Your task to perform on an android device: check the backup settings in the google photos Image 0: 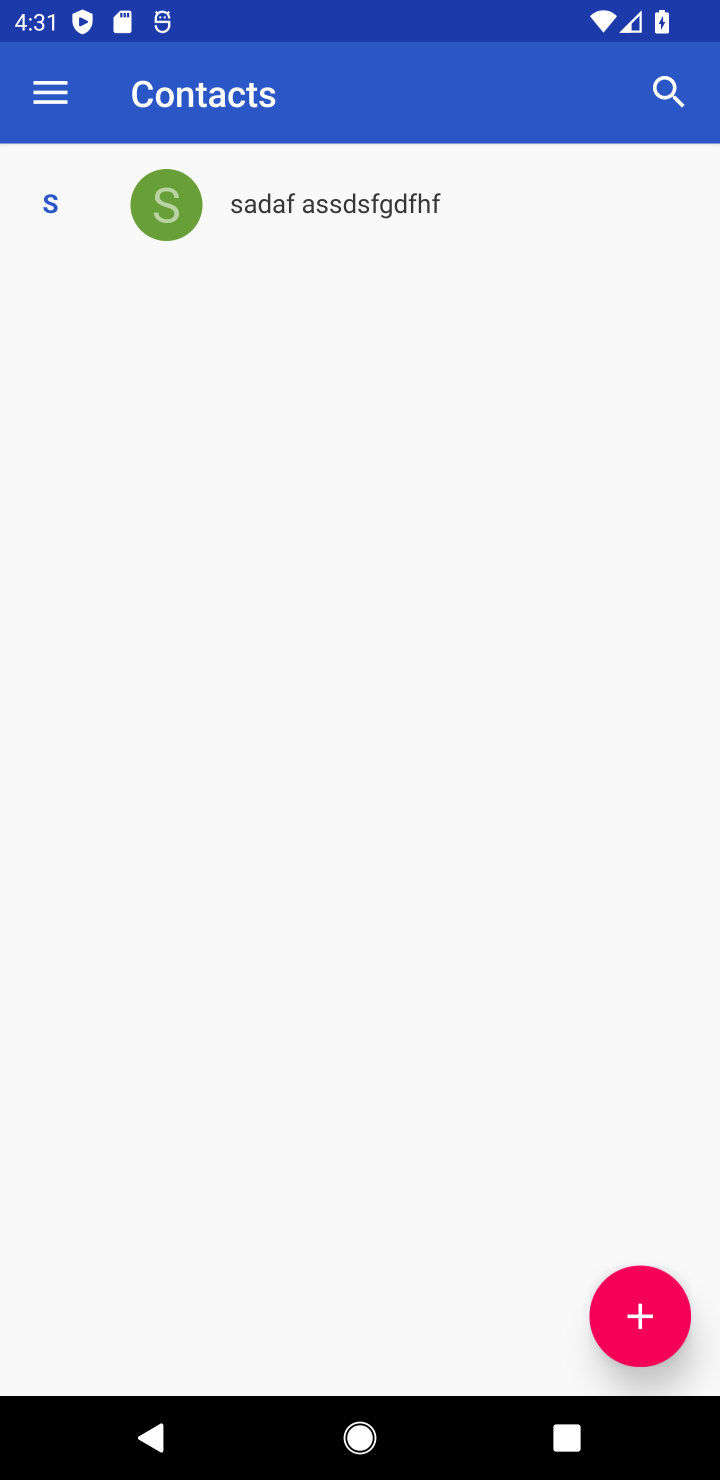
Step 0: press home button
Your task to perform on an android device: check the backup settings in the google photos Image 1: 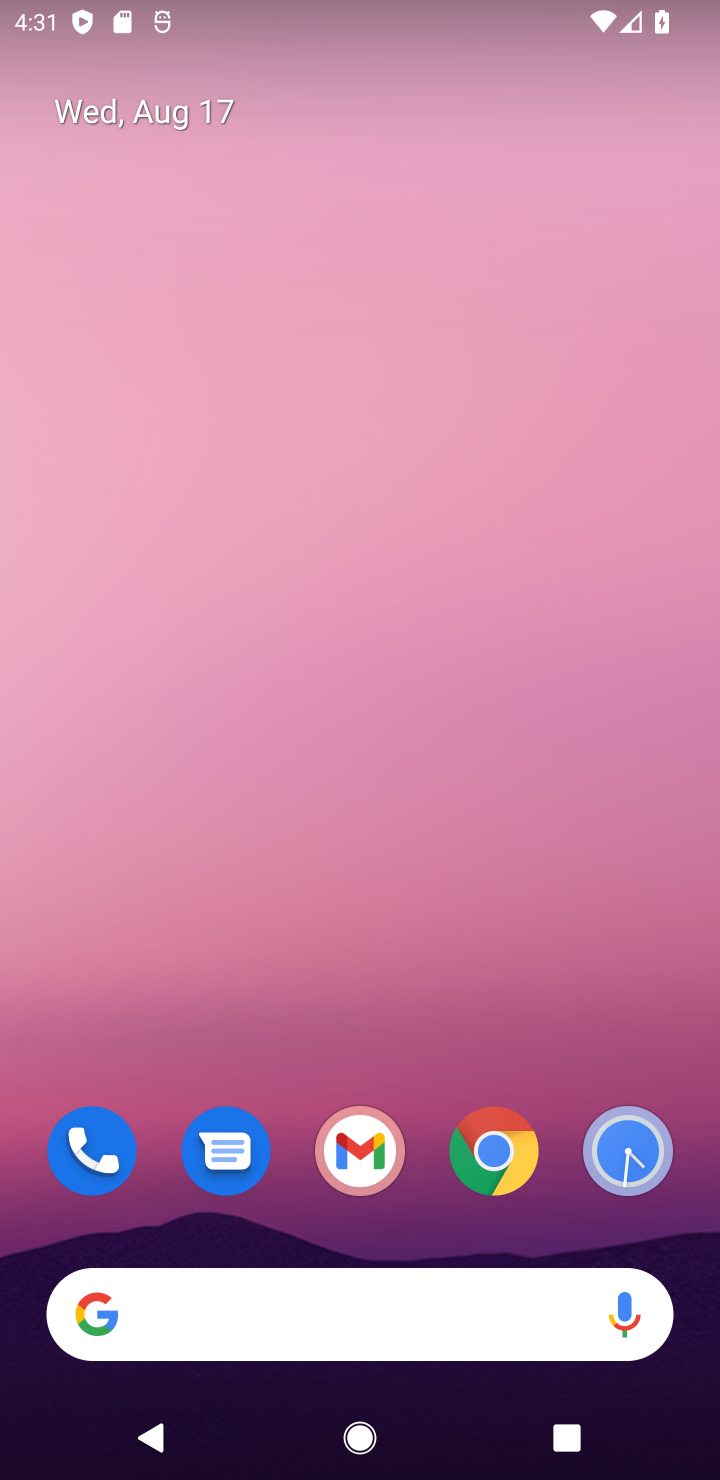
Step 1: drag from (449, 1214) to (412, 241)
Your task to perform on an android device: check the backup settings in the google photos Image 2: 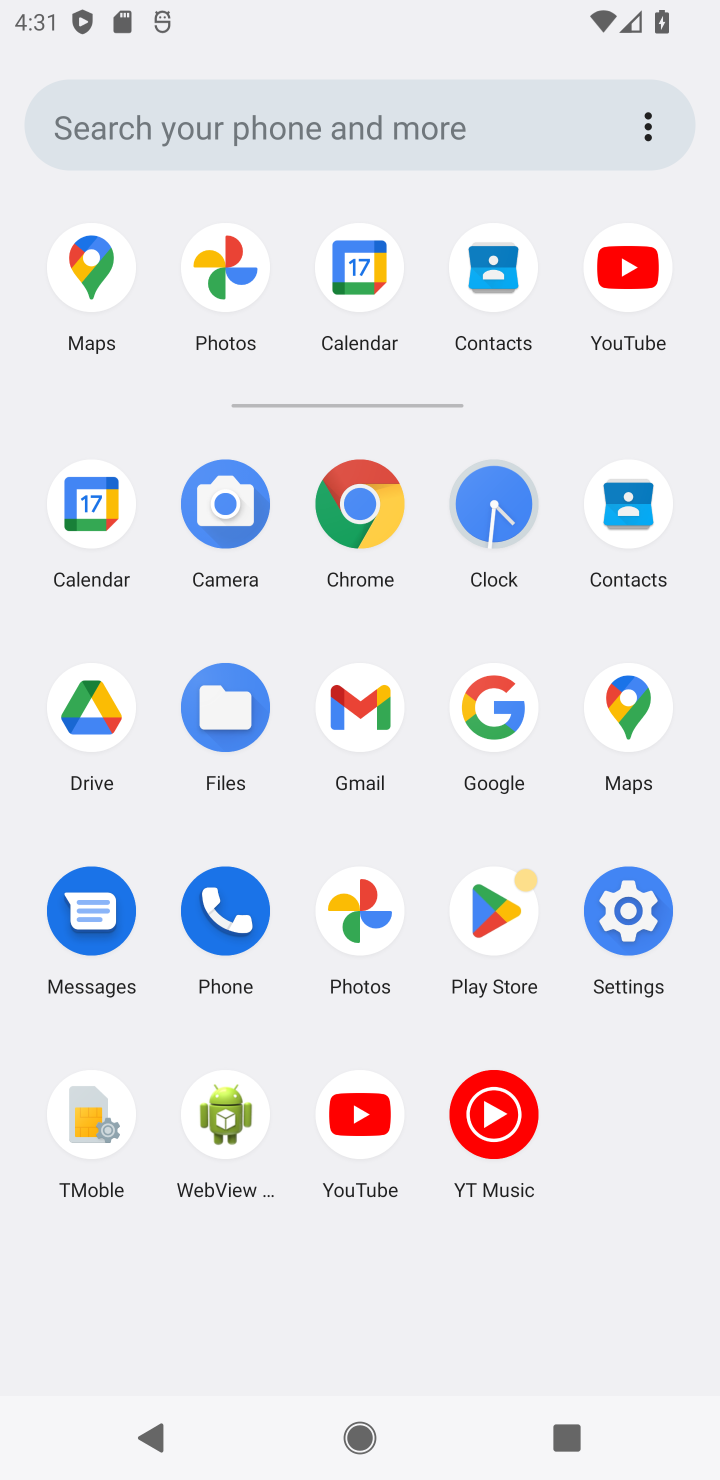
Step 2: click (630, 996)
Your task to perform on an android device: check the backup settings in the google photos Image 3: 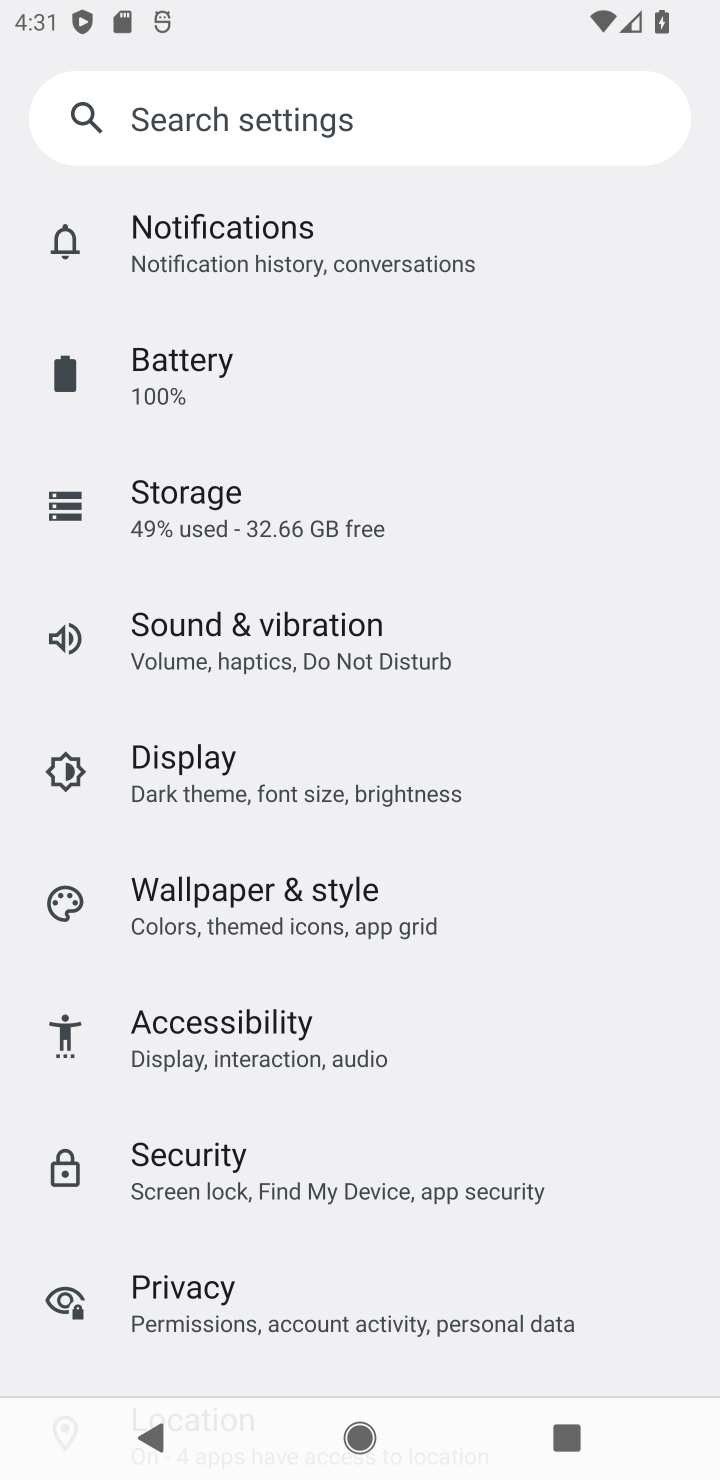
Step 3: press home button
Your task to perform on an android device: check the backup settings in the google photos Image 4: 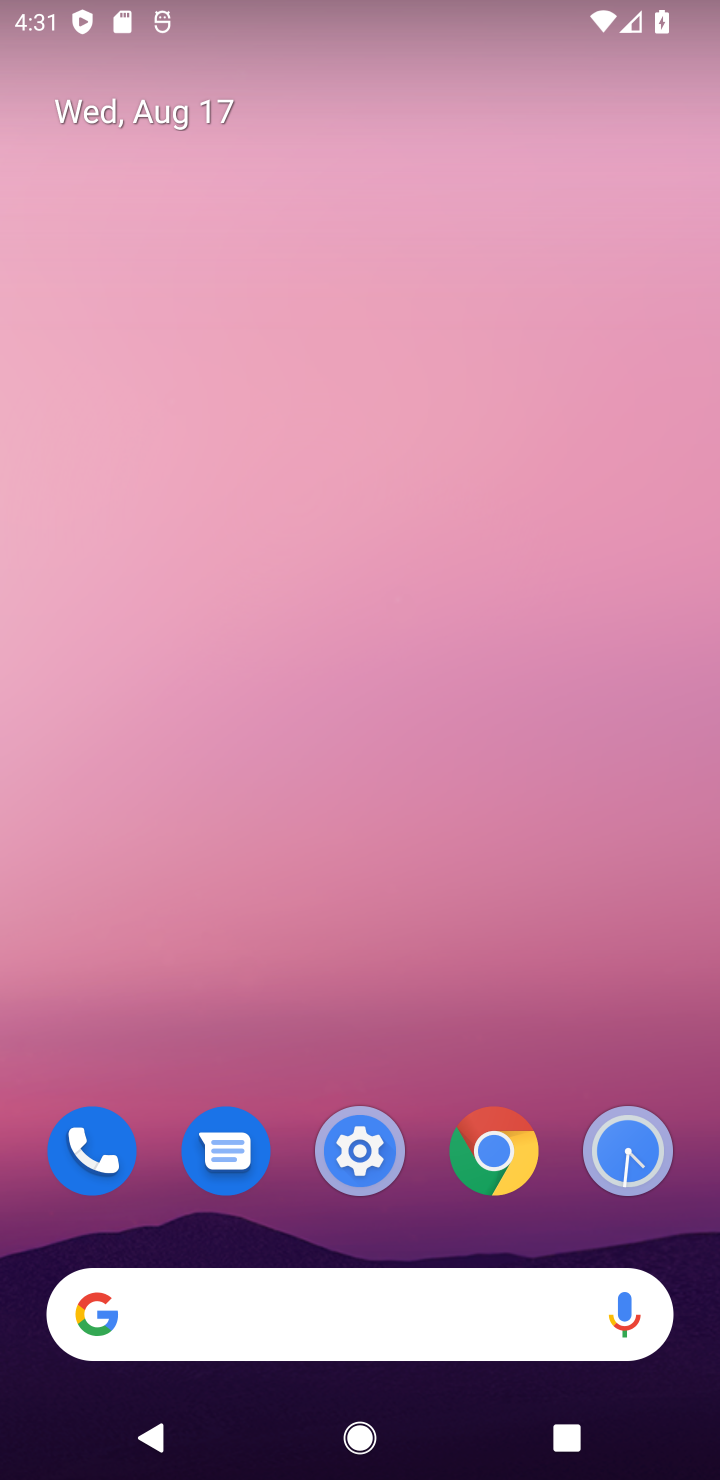
Step 4: drag from (434, 1225) to (415, 215)
Your task to perform on an android device: check the backup settings in the google photos Image 5: 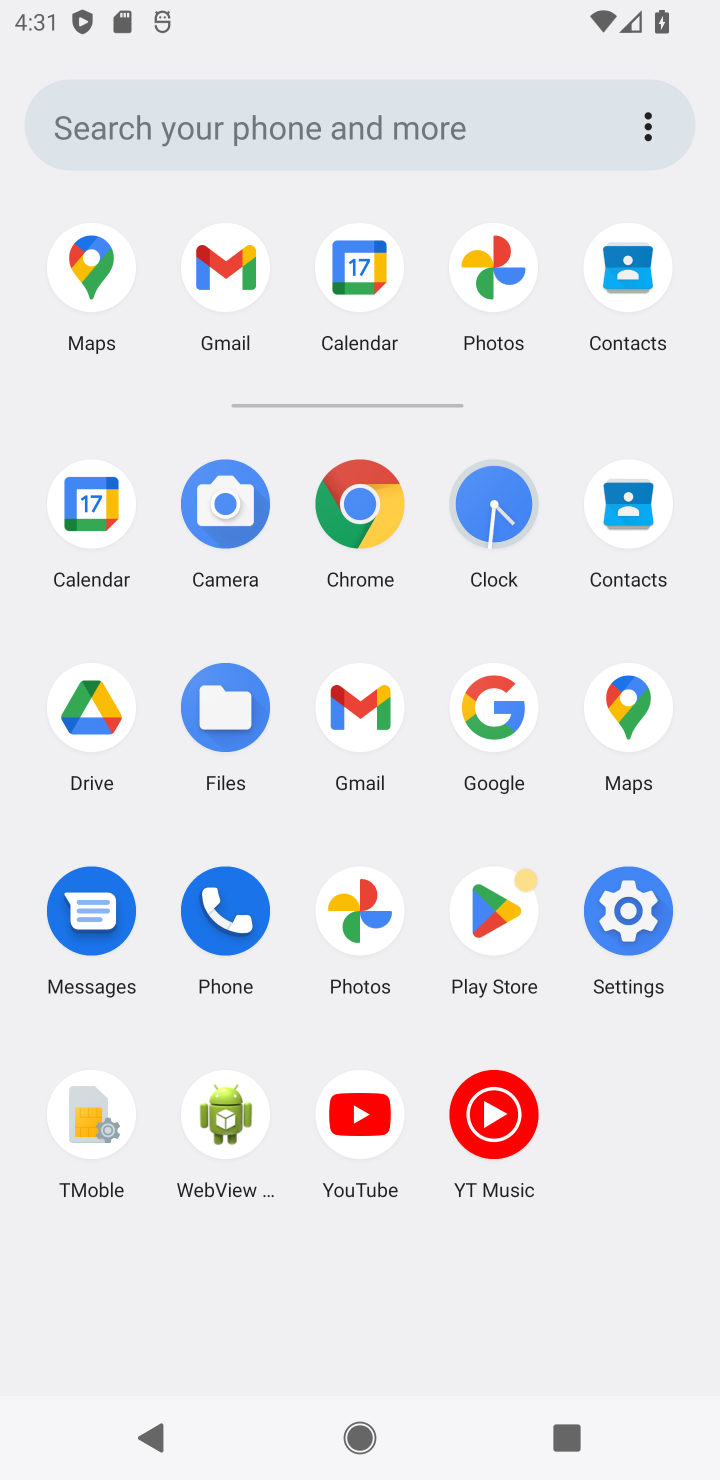
Step 5: click (347, 895)
Your task to perform on an android device: check the backup settings in the google photos Image 6: 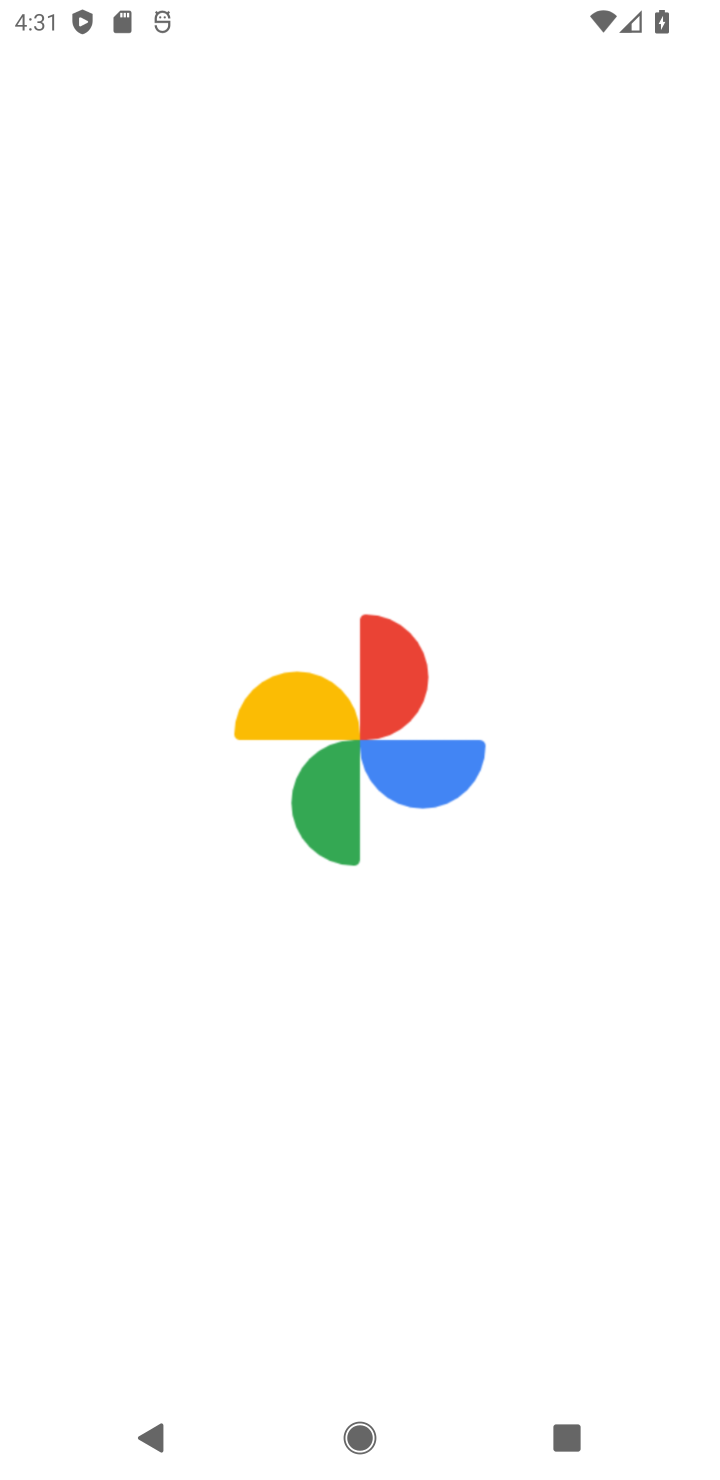
Step 6: task complete